Your task to perform on an android device: Do I have any events today? Image 0: 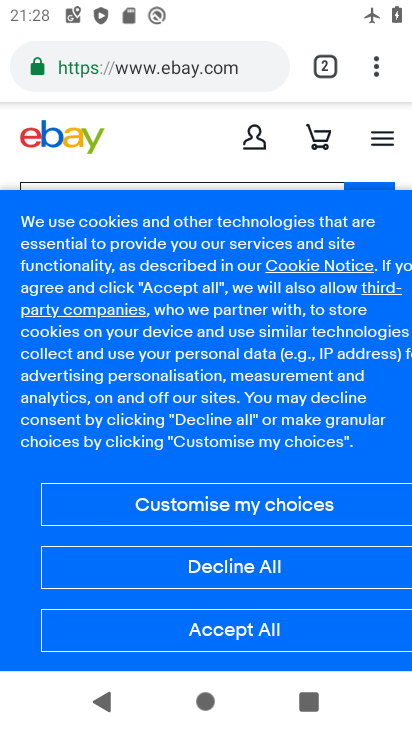
Step 0: press home button
Your task to perform on an android device: Do I have any events today? Image 1: 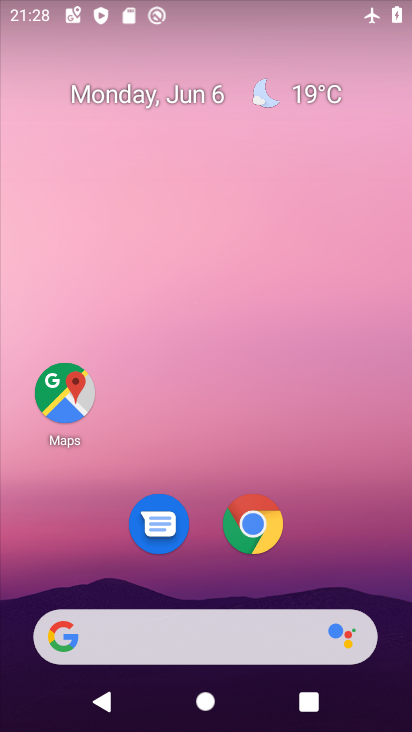
Step 1: drag from (200, 421) to (157, 11)
Your task to perform on an android device: Do I have any events today? Image 2: 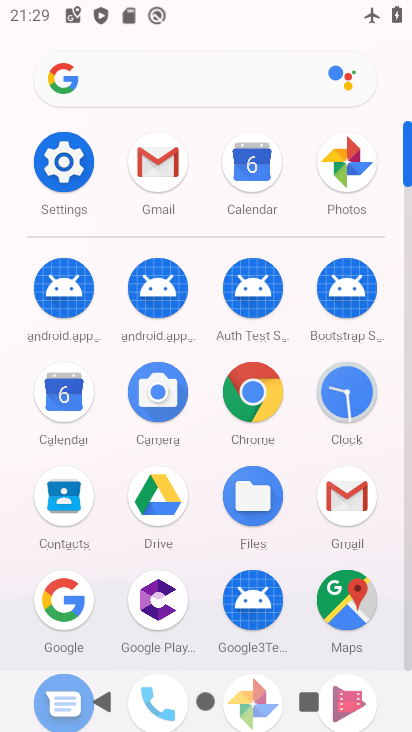
Step 2: click (72, 392)
Your task to perform on an android device: Do I have any events today? Image 3: 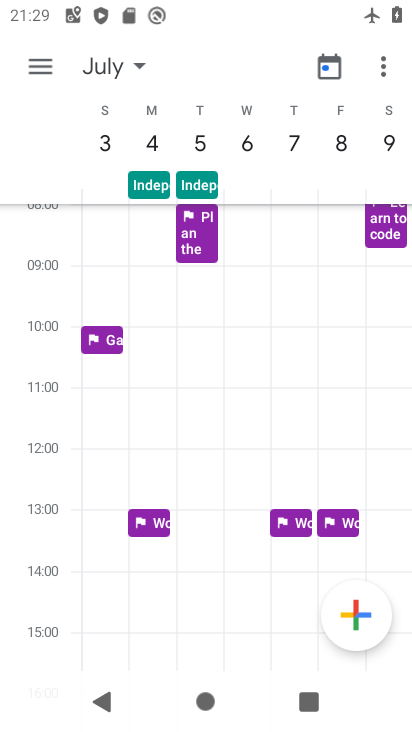
Step 3: drag from (155, 412) to (379, 521)
Your task to perform on an android device: Do I have any events today? Image 4: 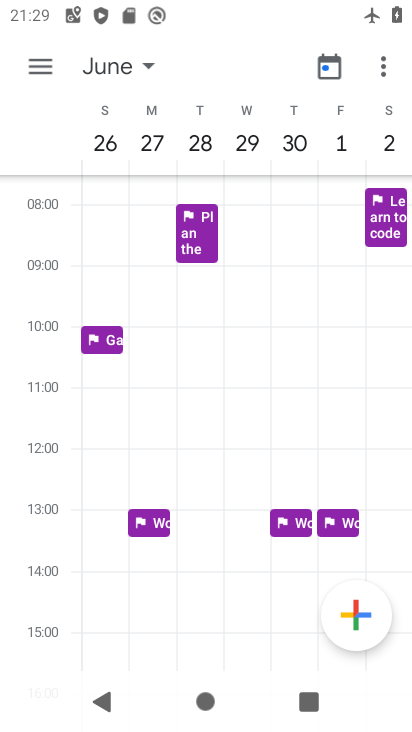
Step 4: drag from (107, 424) to (369, 527)
Your task to perform on an android device: Do I have any events today? Image 5: 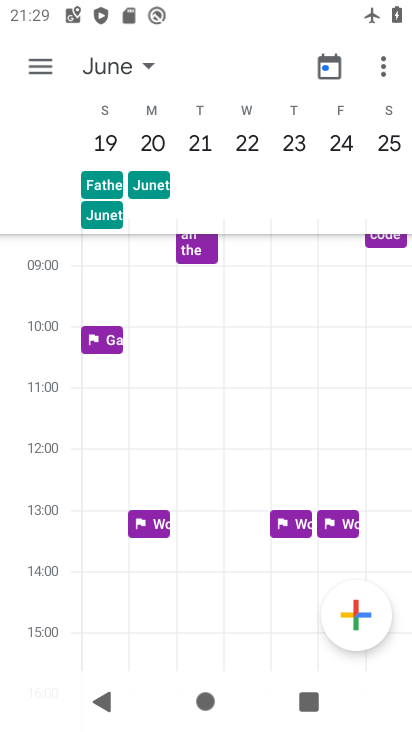
Step 5: drag from (88, 461) to (318, 547)
Your task to perform on an android device: Do I have any events today? Image 6: 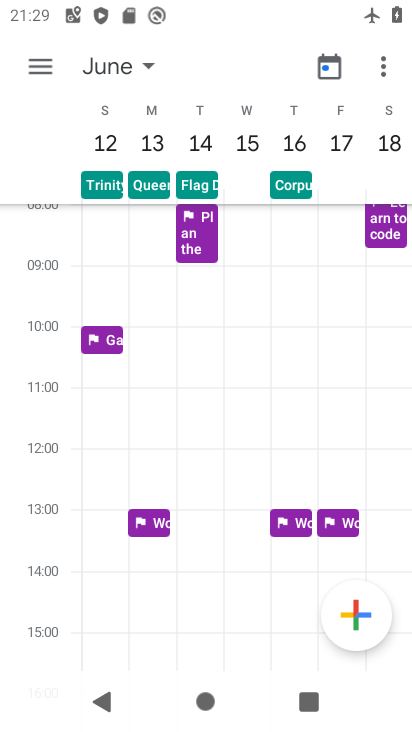
Step 6: drag from (119, 408) to (362, 542)
Your task to perform on an android device: Do I have any events today? Image 7: 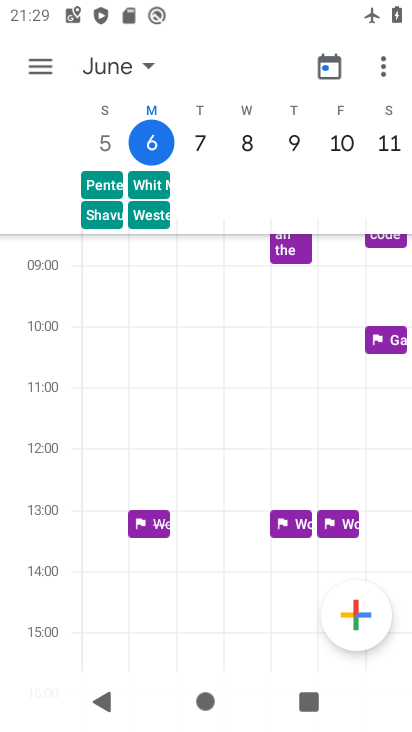
Step 7: click (161, 140)
Your task to perform on an android device: Do I have any events today? Image 8: 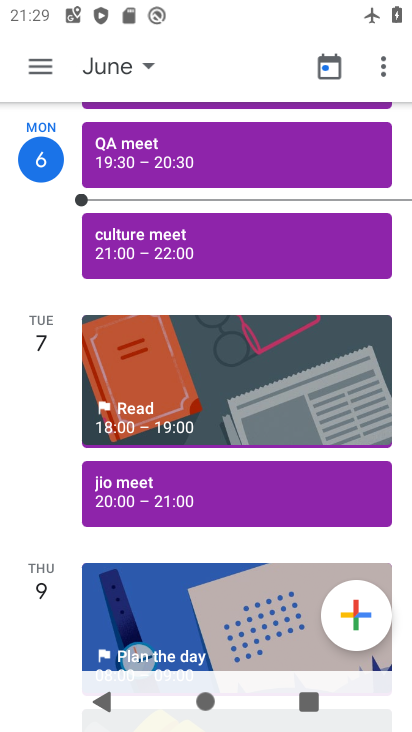
Step 8: task complete